Your task to perform on an android device: find snoozed emails in the gmail app Image 0: 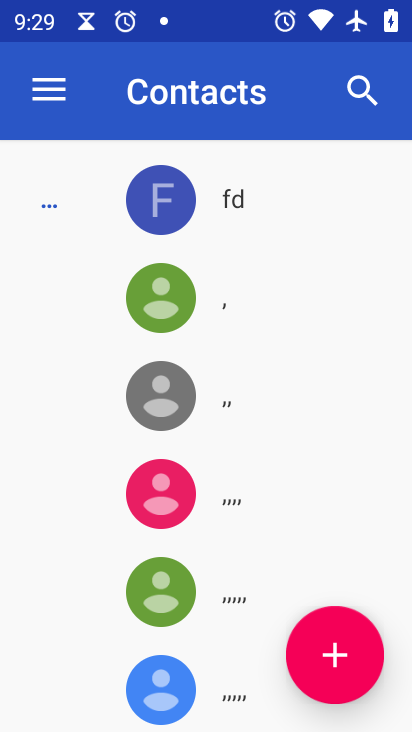
Step 0: press back button
Your task to perform on an android device: find snoozed emails in the gmail app Image 1: 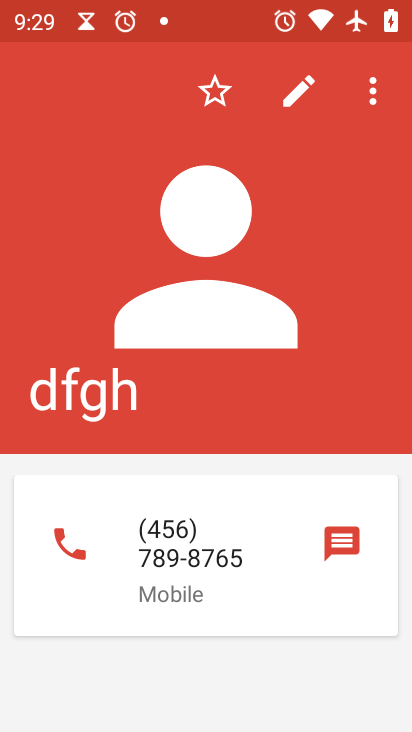
Step 1: press home button
Your task to perform on an android device: find snoozed emails in the gmail app Image 2: 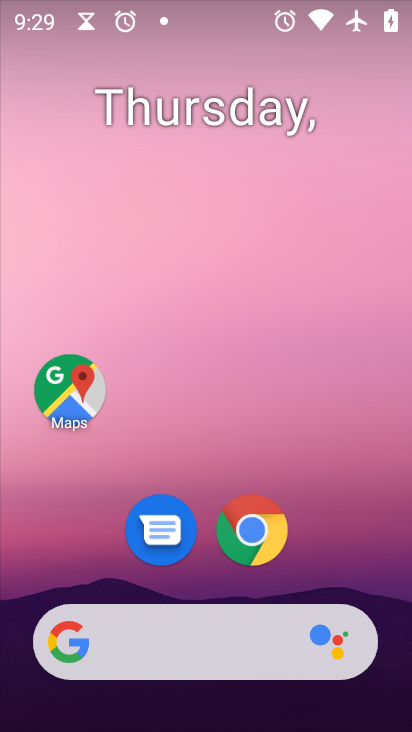
Step 2: drag from (369, 551) to (263, 8)
Your task to perform on an android device: find snoozed emails in the gmail app Image 3: 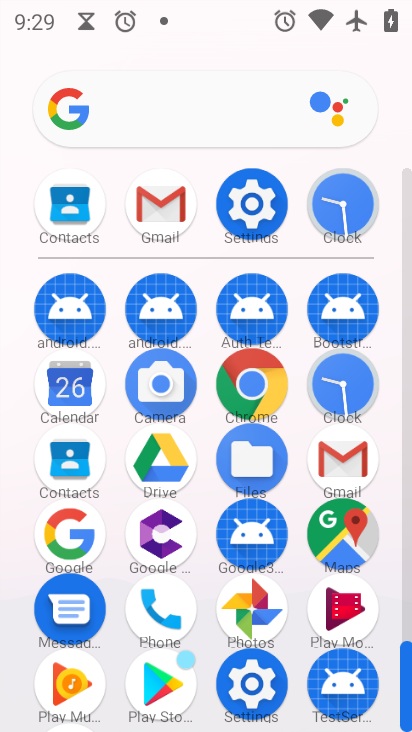
Step 3: click (344, 456)
Your task to perform on an android device: find snoozed emails in the gmail app Image 4: 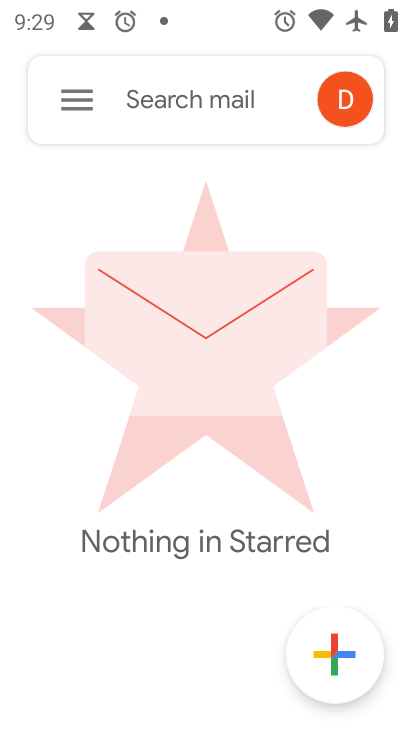
Step 4: click (67, 94)
Your task to perform on an android device: find snoozed emails in the gmail app Image 5: 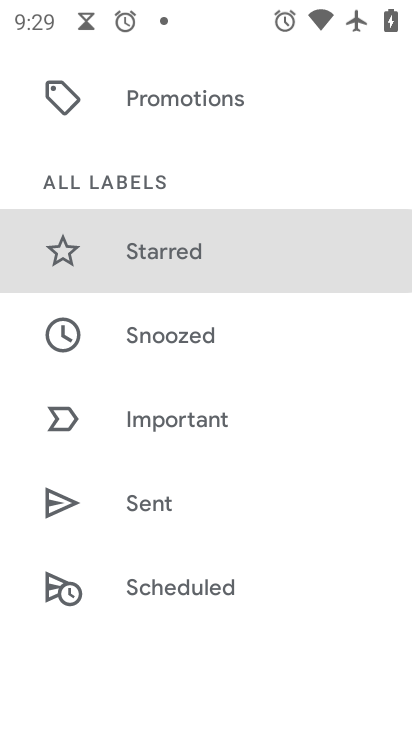
Step 5: click (191, 332)
Your task to perform on an android device: find snoozed emails in the gmail app Image 6: 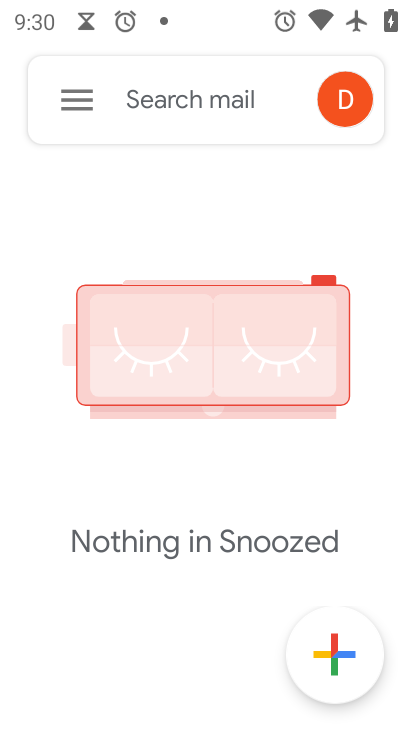
Step 6: task complete